Your task to perform on an android device: snooze an email in the gmail app Image 0: 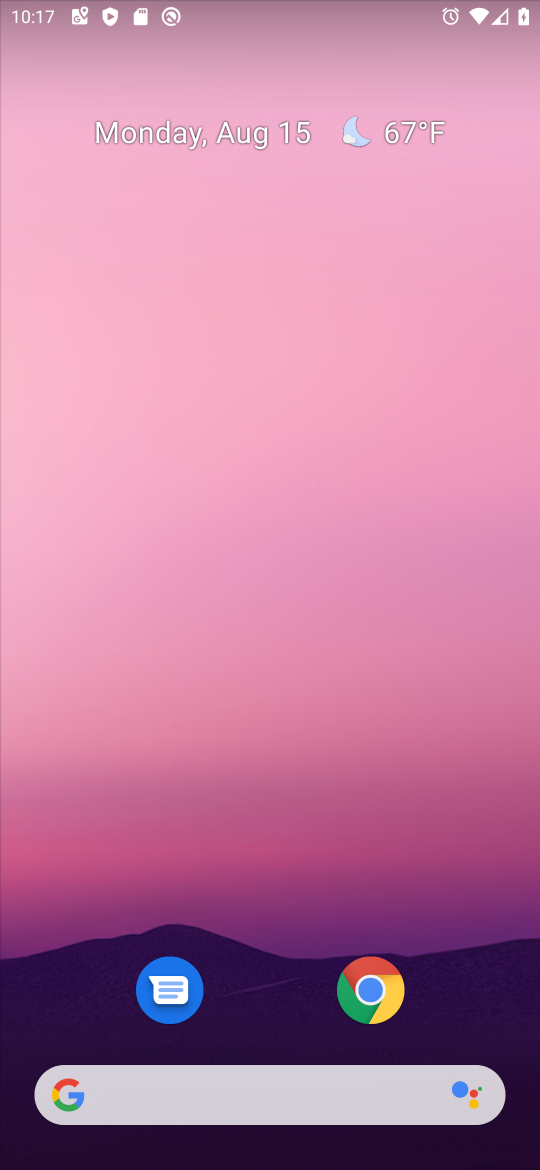
Step 0: press home button
Your task to perform on an android device: snooze an email in the gmail app Image 1: 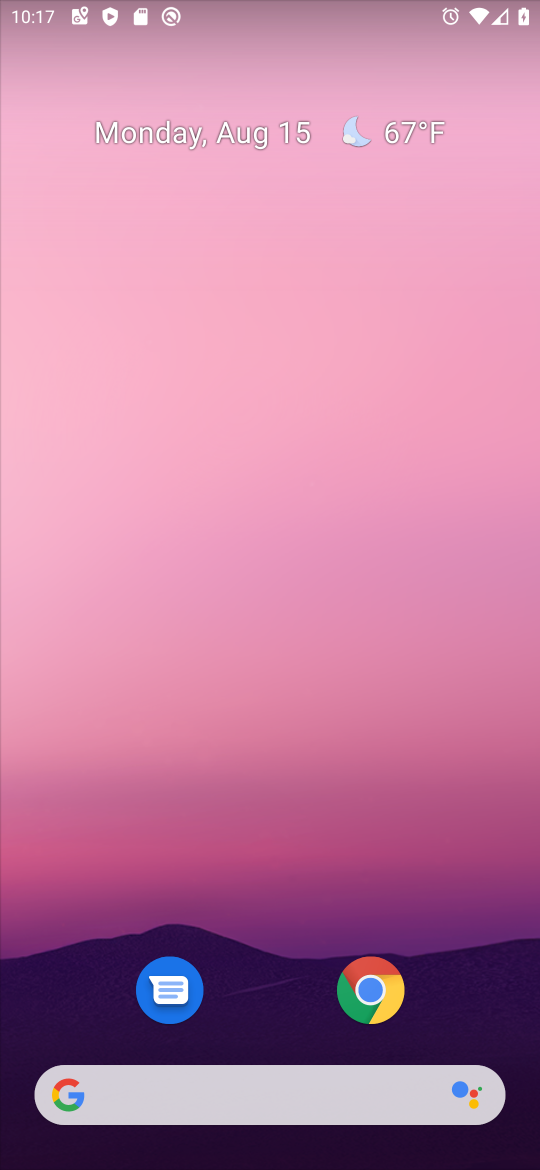
Step 1: drag from (272, 896) to (288, 138)
Your task to perform on an android device: snooze an email in the gmail app Image 2: 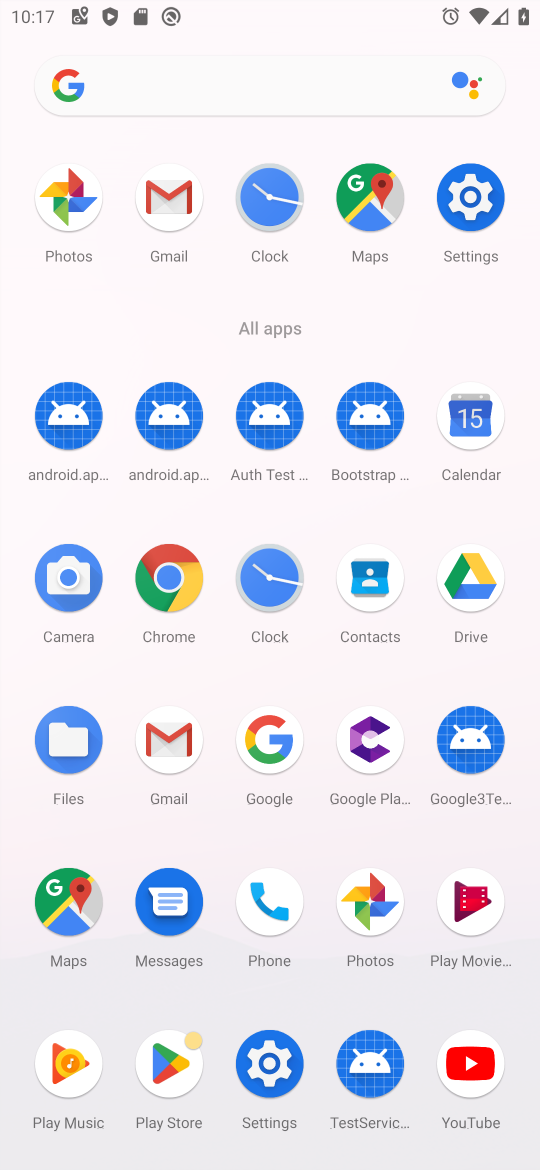
Step 2: click (170, 203)
Your task to perform on an android device: snooze an email in the gmail app Image 3: 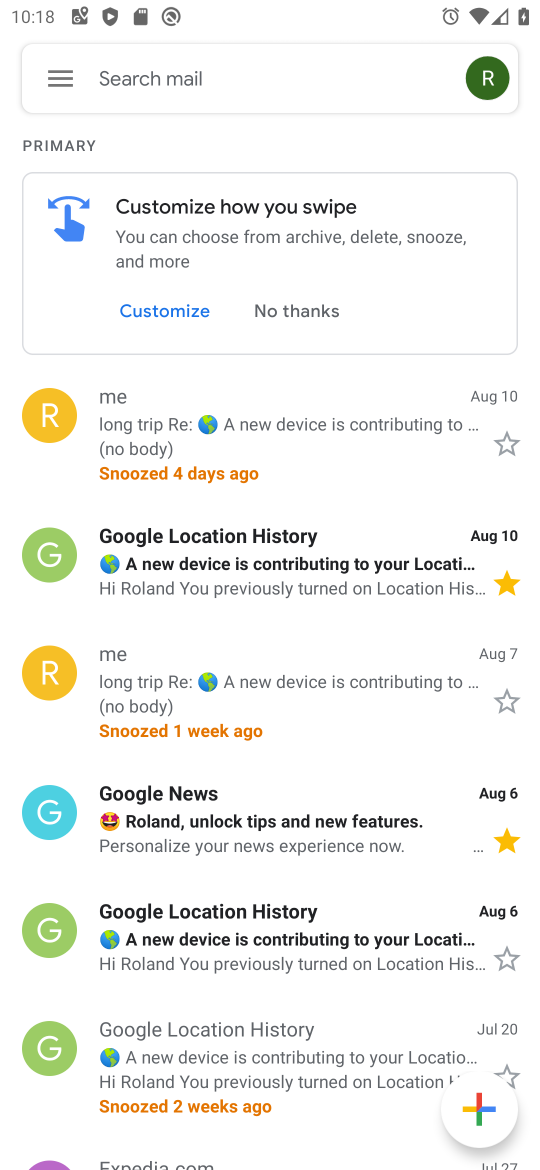
Step 3: click (57, 59)
Your task to perform on an android device: snooze an email in the gmail app Image 4: 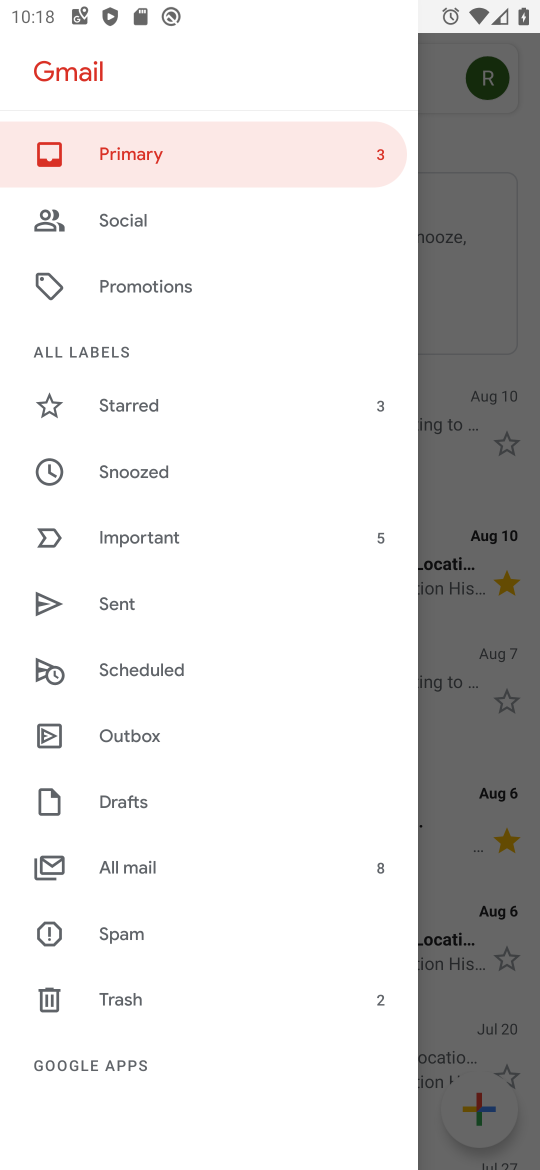
Step 4: click (125, 867)
Your task to perform on an android device: snooze an email in the gmail app Image 5: 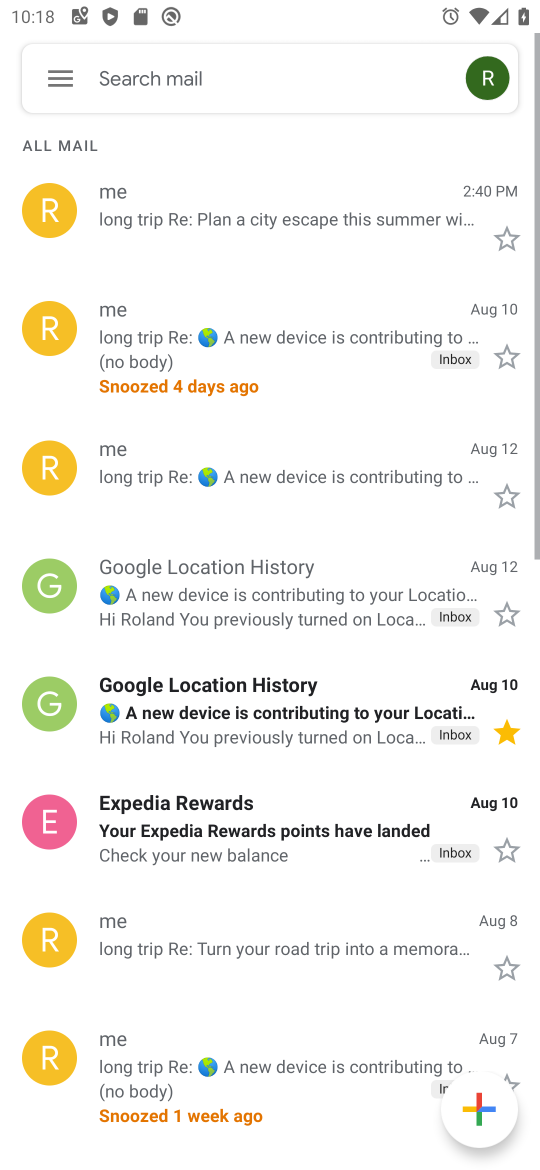
Step 5: click (272, 202)
Your task to perform on an android device: snooze an email in the gmail app Image 6: 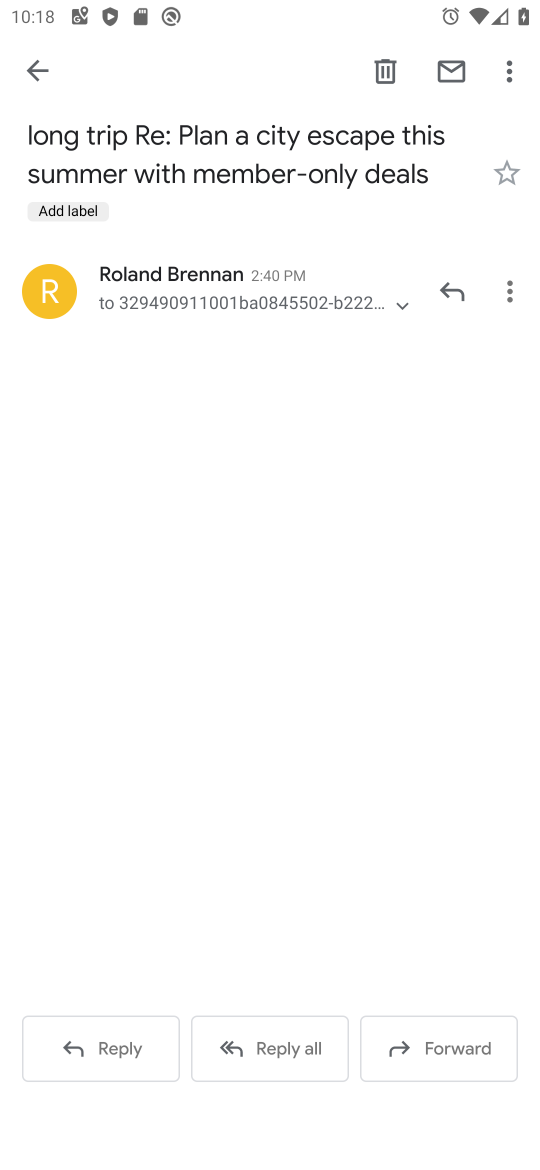
Step 6: click (506, 73)
Your task to perform on an android device: snooze an email in the gmail app Image 7: 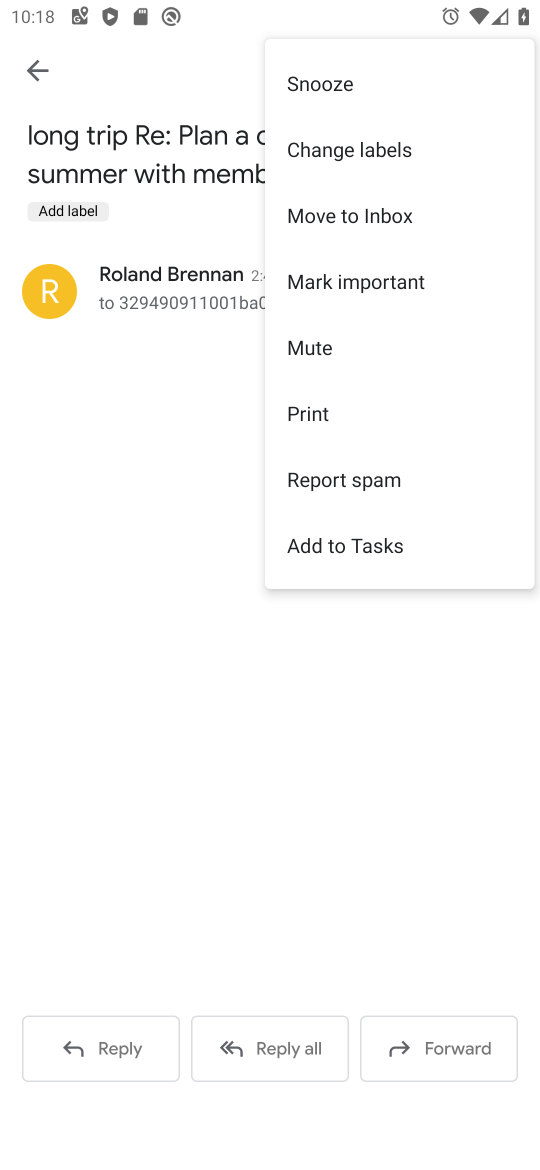
Step 7: click (310, 84)
Your task to perform on an android device: snooze an email in the gmail app Image 8: 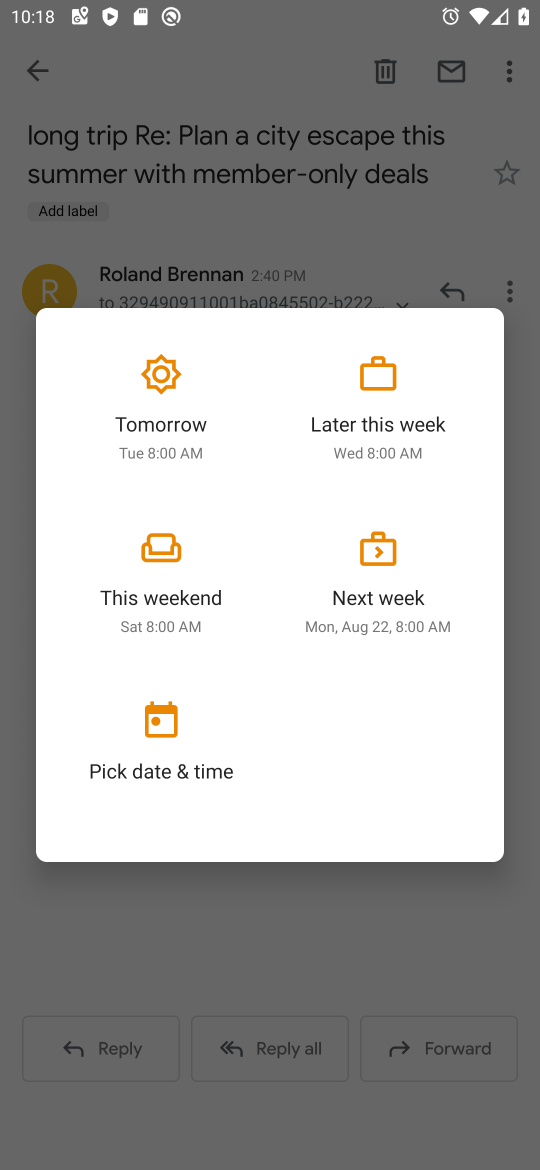
Step 8: click (155, 389)
Your task to perform on an android device: snooze an email in the gmail app Image 9: 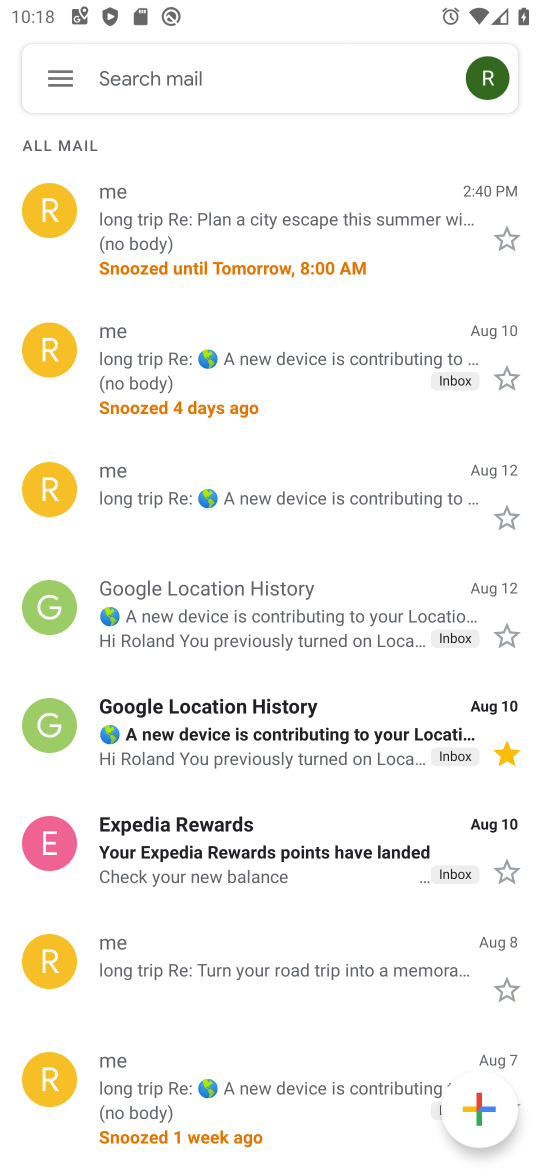
Step 9: task complete